Your task to perform on an android device: read, delete, or share a saved page in the chrome app Image 0: 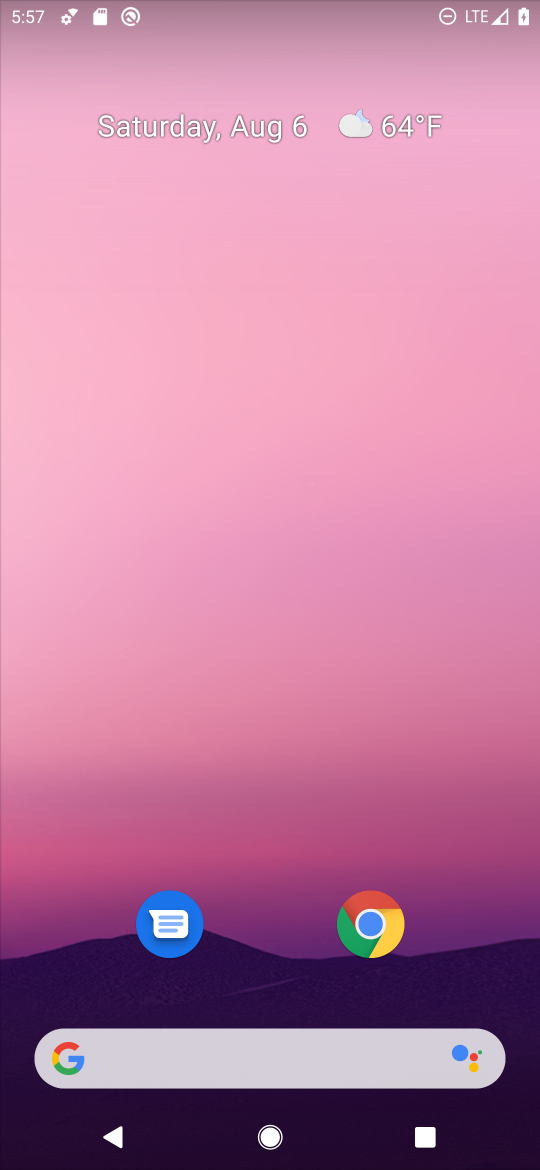
Step 0: press home button
Your task to perform on an android device: read, delete, or share a saved page in the chrome app Image 1: 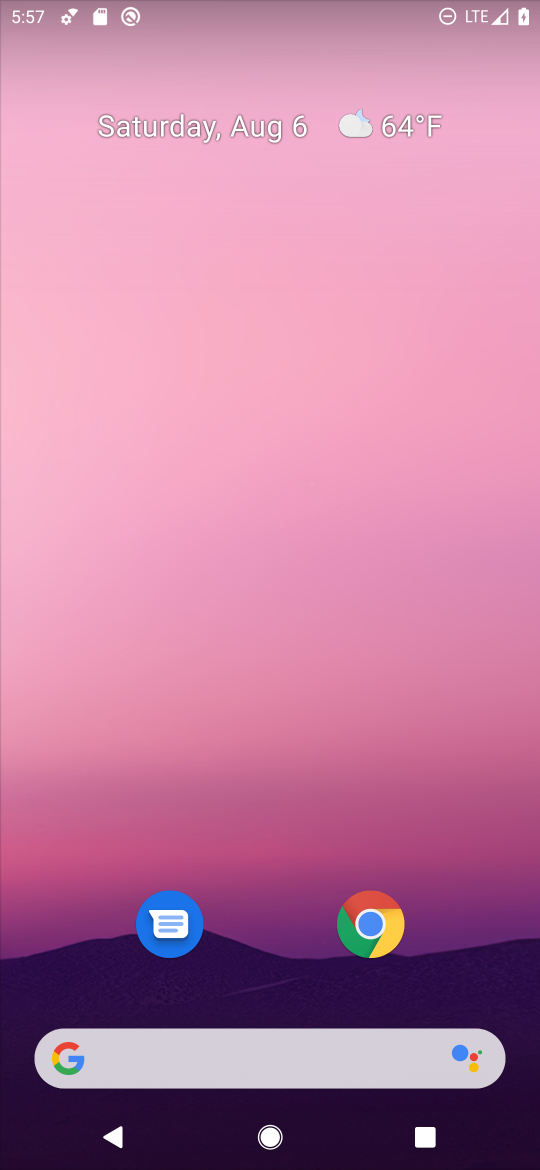
Step 1: click (368, 929)
Your task to perform on an android device: read, delete, or share a saved page in the chrome app Image 2: 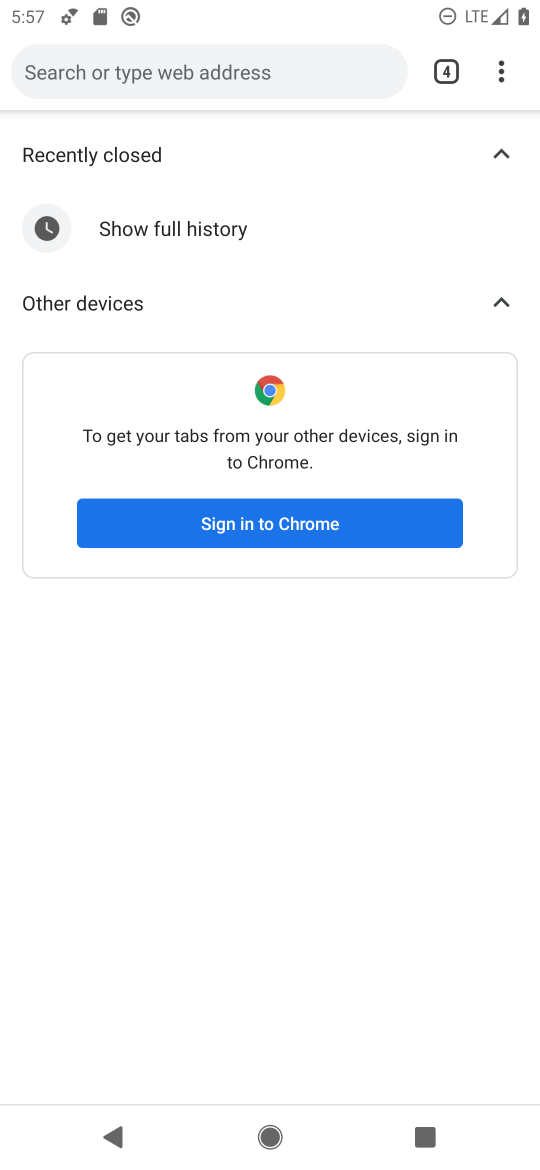
Step 2: click (505, 72)
Your task to perform on an android device: read, delete, or share a saved page in the chrome app Image 3: 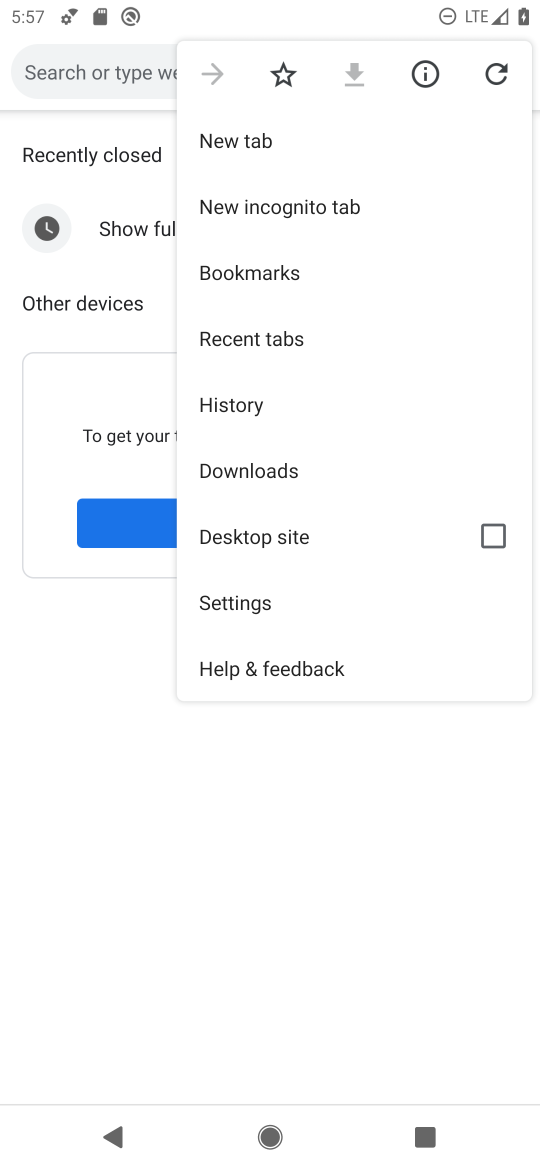
Step 3: click (260, 466)
Your task to perform on an android device: read, delete, or share a saved page in the chrome app Image 4: 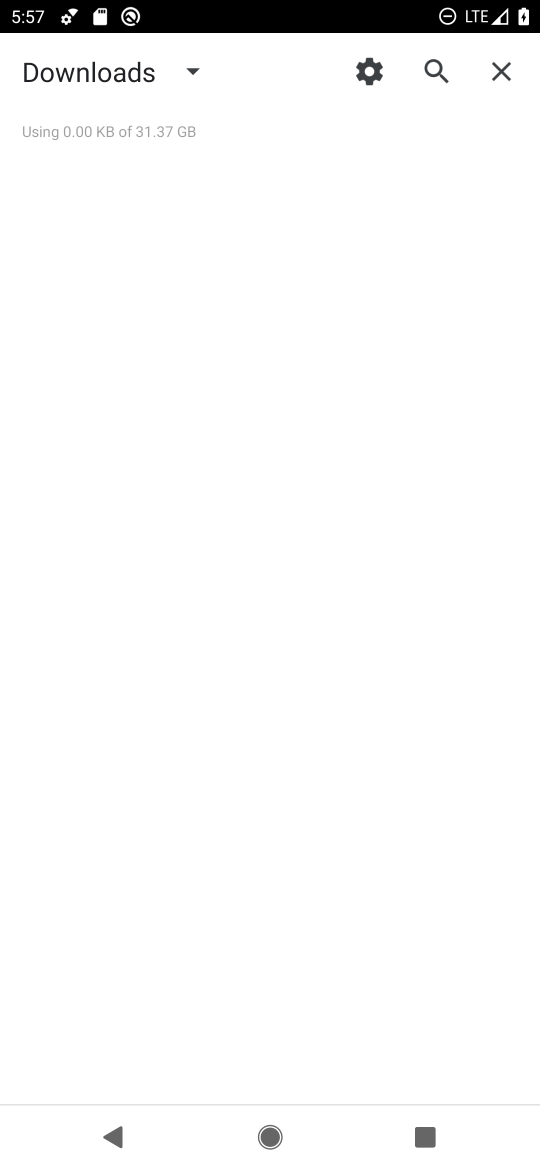
Step 4: task complete